Your task to perform on an android device: What is the recent news? Image 0: 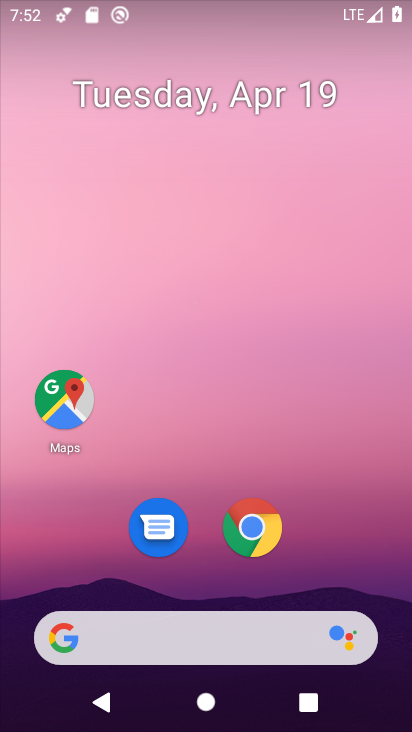
Step 0: click (268, 542)
Your task to perform on an android device: What is the recent news? Image 1: 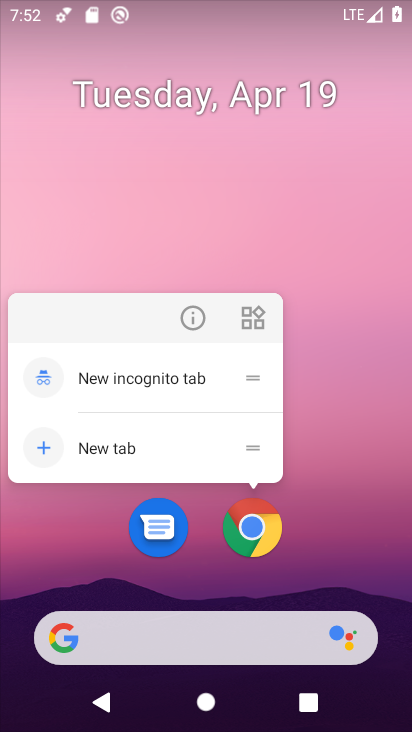
Step 1: click (267, 540)
Your task to perform on an android device: What is the recent news? Image 2: 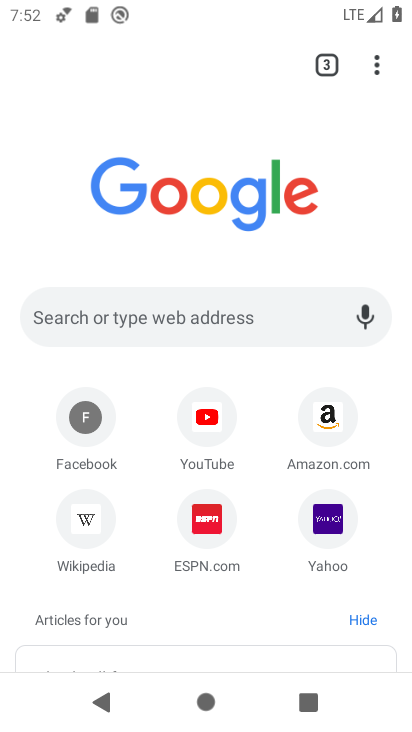
Step 2: click (275, 314)
Your task to perform on an android device: What is the recent news? Image 3: 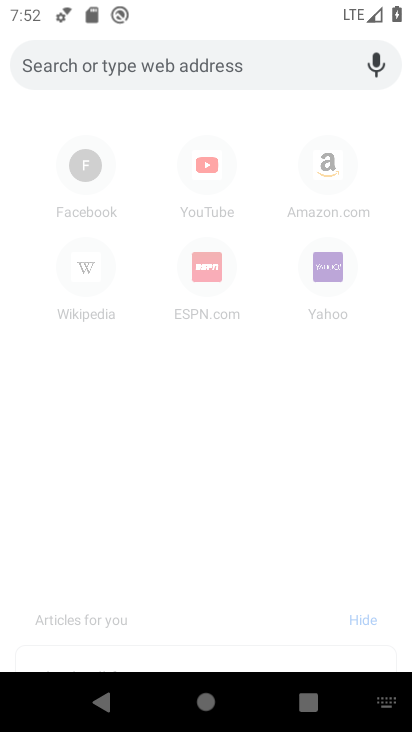
Step 3: type "recent news"
Your task to perform on an android device: What is the recent news? Image 4: 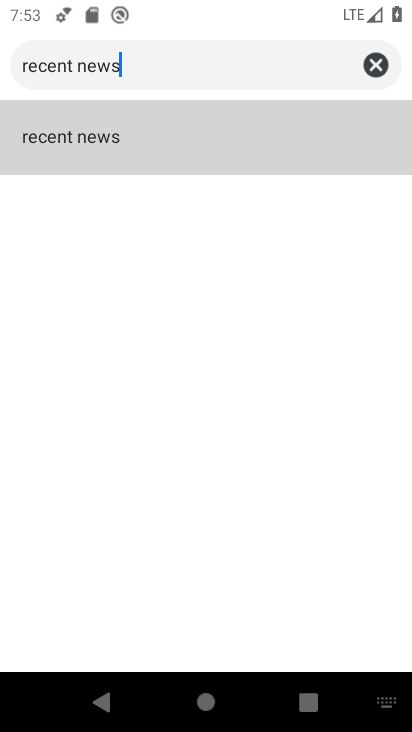
Step 4: click (87, 141)
Your task to perform on an android device: What is the recent news? Image 5: 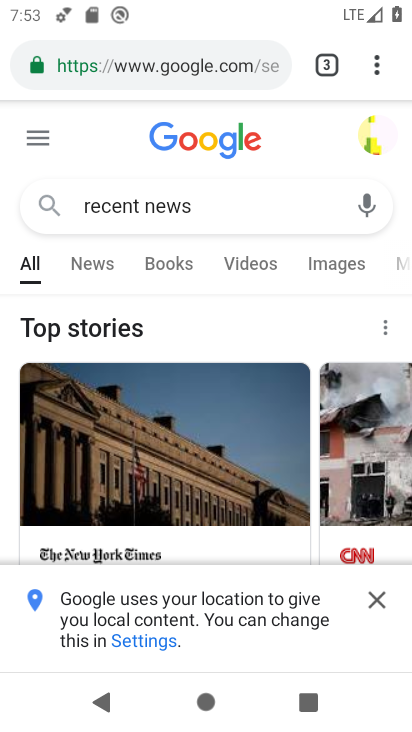
Step 5: click (384, 603)
Your task to perform on an android device: What is the recent news? Image 6: 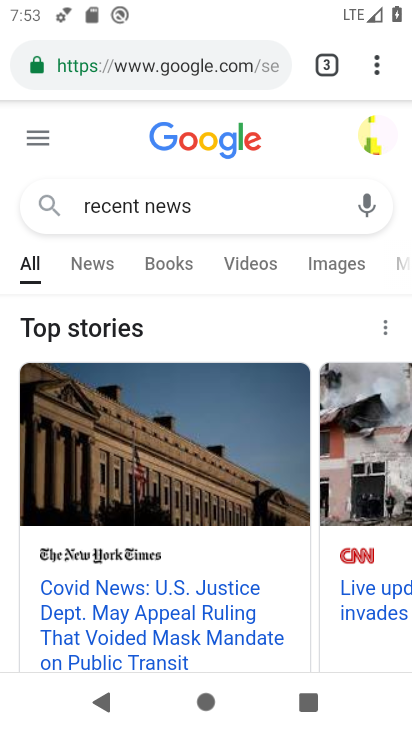
Step 6: task complete